Your task to perform on an android device: turn on javascript in the chrome app Image 0: 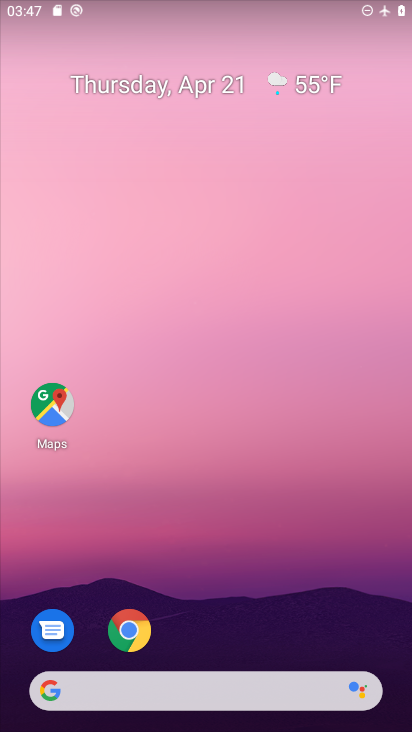
Step 0: click (142, 626)
Your task to perform on an android device: turn on javascript in the chrome app Image 1: 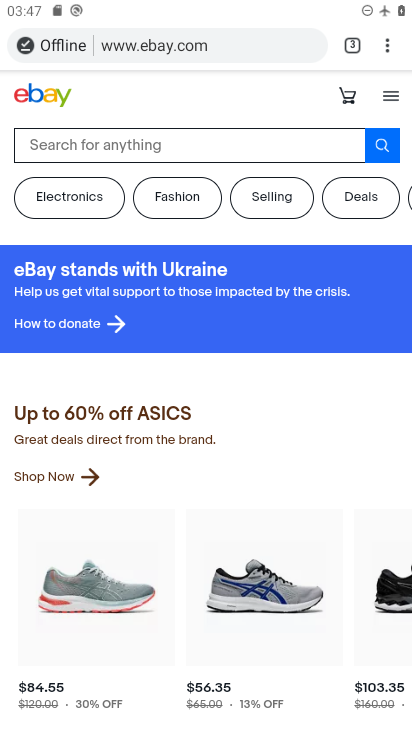
Step 1: click (387, 49)
Your task to perform on an android device: turn on javascript in the chrome app Image 2: 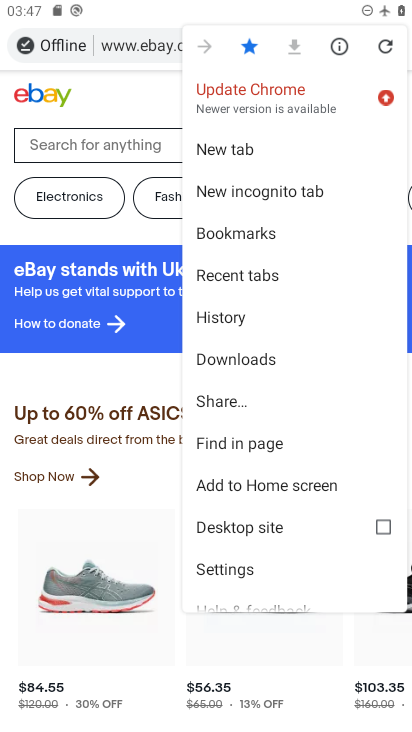
Step 2: click (268, 582)
Your task to perform on an android device: turn on javascript in the chrome app Image 3: 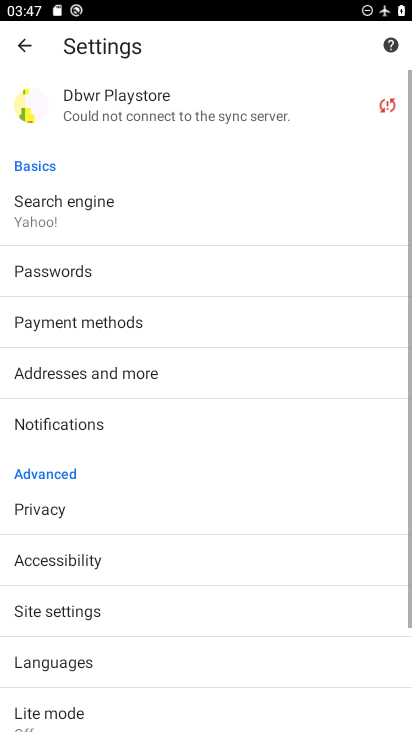
Step 3: drag from (218, 654) to (229, 346)
Your task to perform on an android device: turn on javascript in the chrome app Image 4: 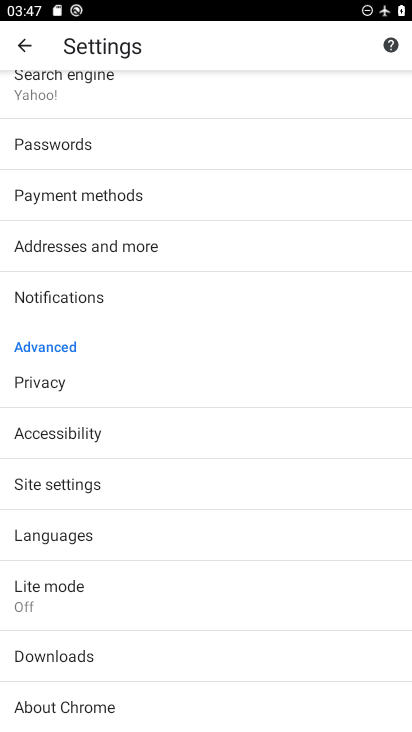
Step 4: click (202, 477)
Your task to perform on an android device: turn on javascript in the chrome app Image 5: 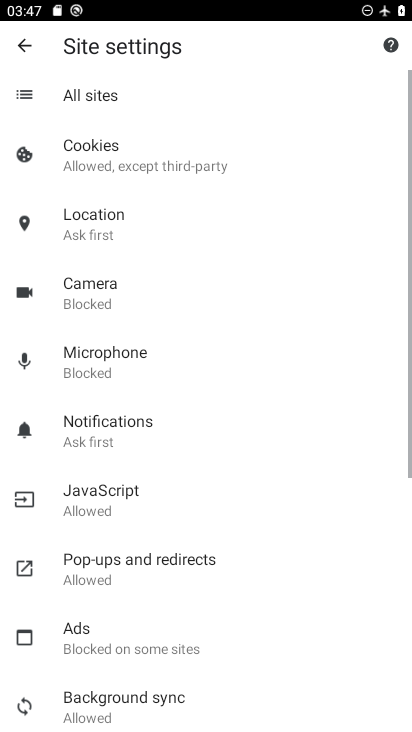
Step 5: click (168, 506)
Your task to perform on an android device: turn on javascript in the chrome app Image 6: 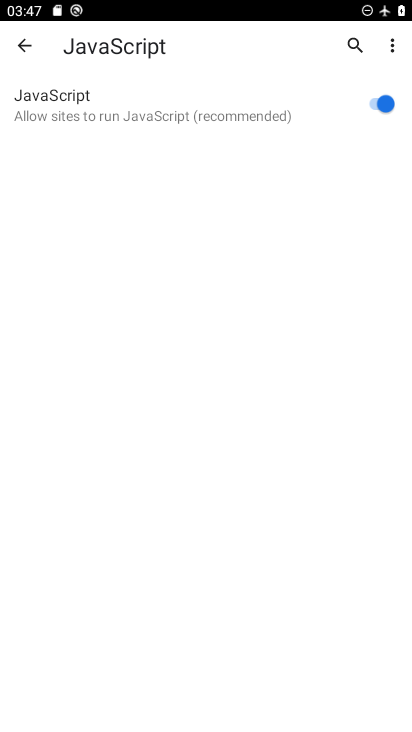
Step 6: click (379, 105)
Your task to perform on an android device: turn on javascript in the chrome app Image 7: 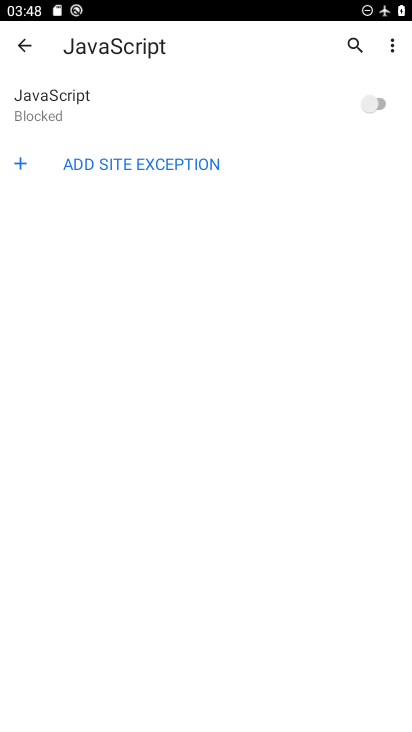
Step 7: click (380, 98)
Your task to perform on an android device: turn on javascript in the chrome app Image 8: 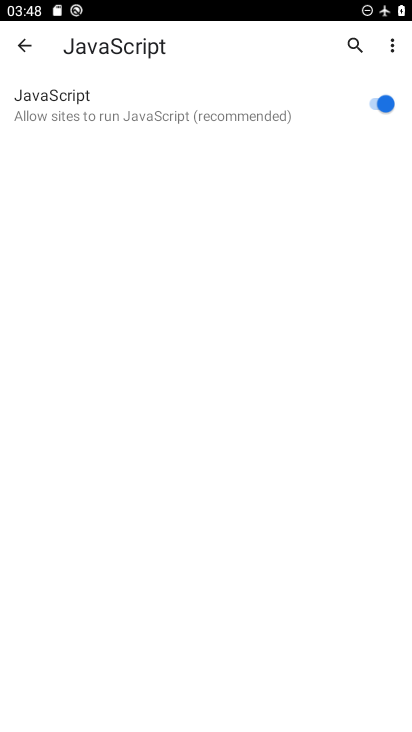
Step 8: task complete